Your task to perform on an android device: Do I have any events today? Image 0: 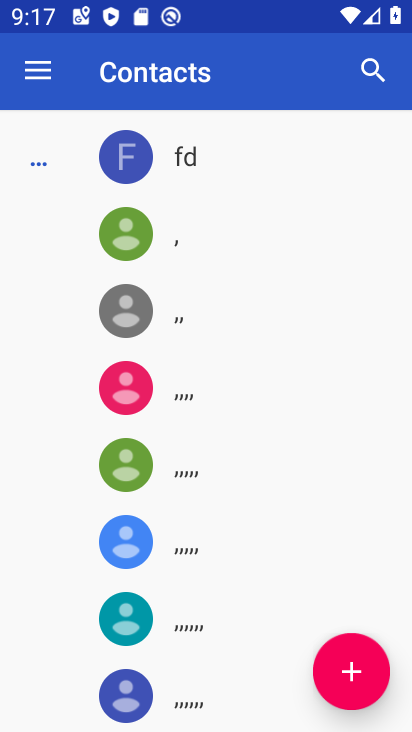
Step 0: press home button
Your task to perform on an android device: Do I have any events today? Image 1: 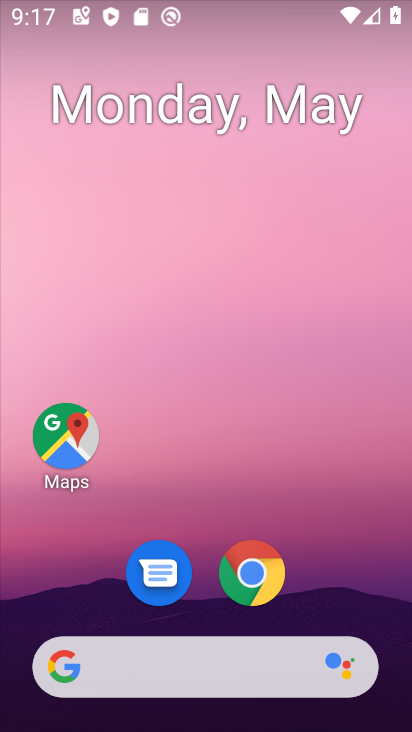
Step 1: drag from (352, 582) to (329, 115)
Your task to perform on an android device: Do I have any events today? Image 2: 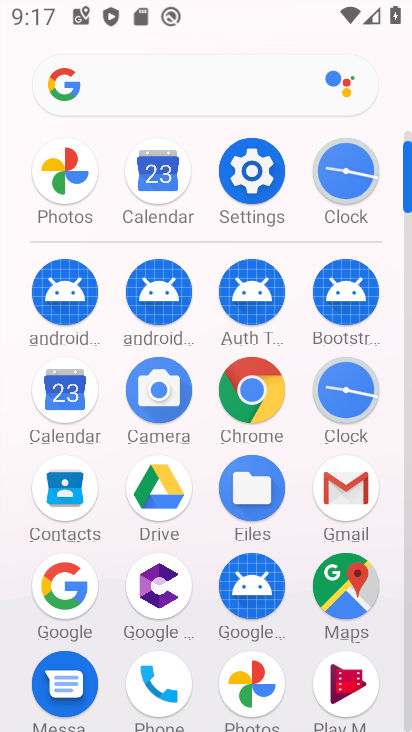
Step 2: click (183, 178)
Your task to perform on an android device: Do I have any events today? Image 3: 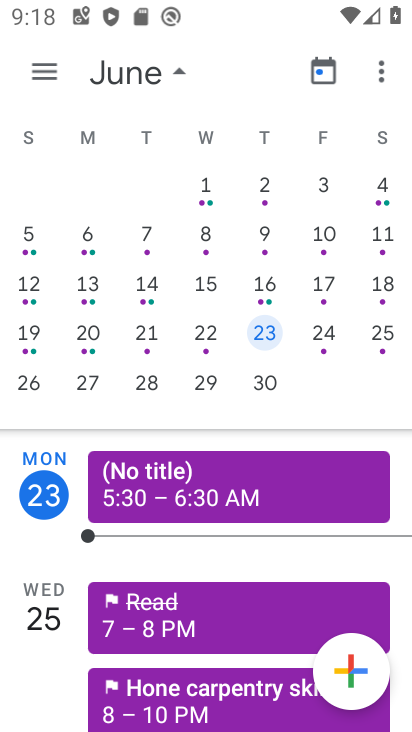
Step 3: task complete